Your task to perform on an android device: Go to Reddit.com Image 0: 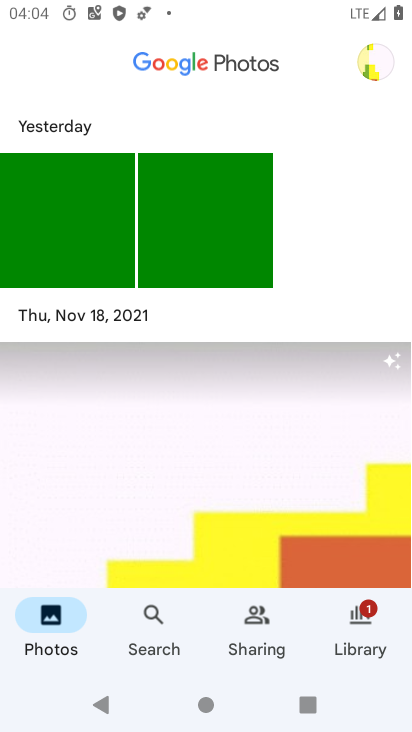
Step 0: press home button
Your task to perform on an android device: Go to Reddit.com Image 1: 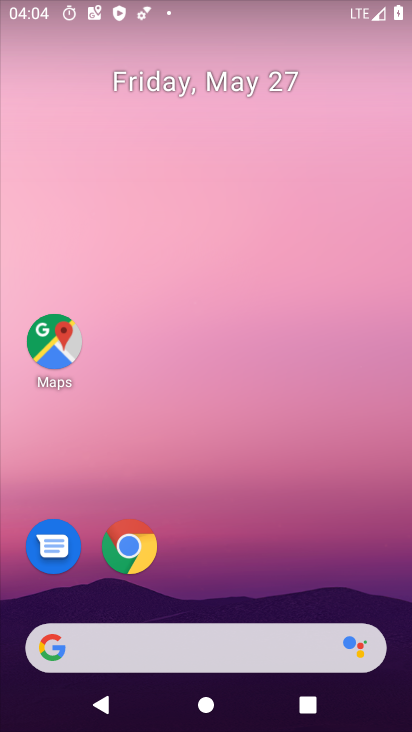
Step 1: drag from (400, 676) to (354, 323)
Your task to perform on an android device: Go to Reddit.com Image 2: 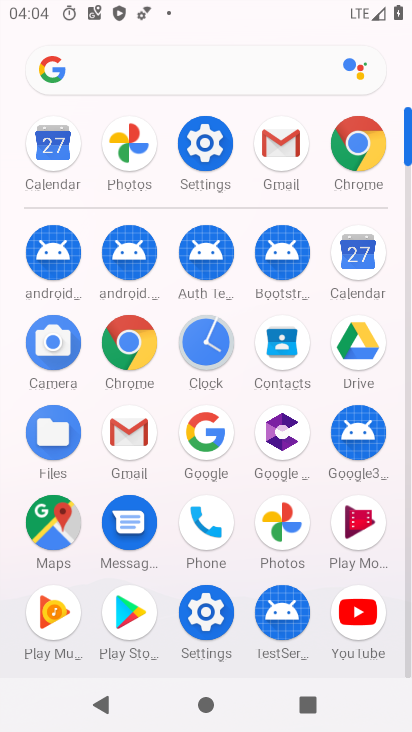
Step 2: click (135, 341)
Your task to perform on an android device: Go to Reddit.com Image 3: 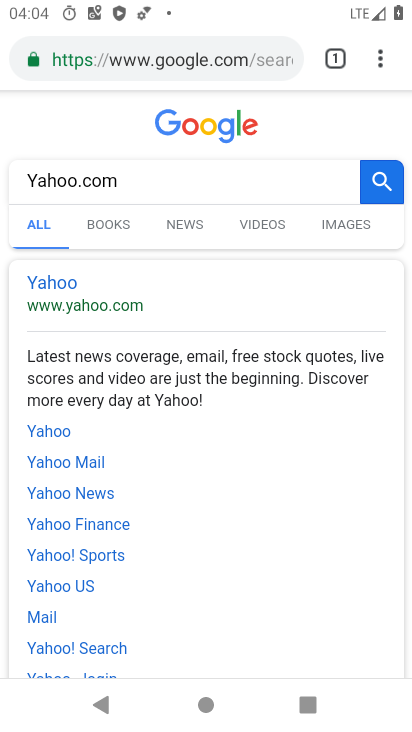
Step 3: click (290, 52)
Your task to perform on an android device: Go to Reddit.com Image 4: 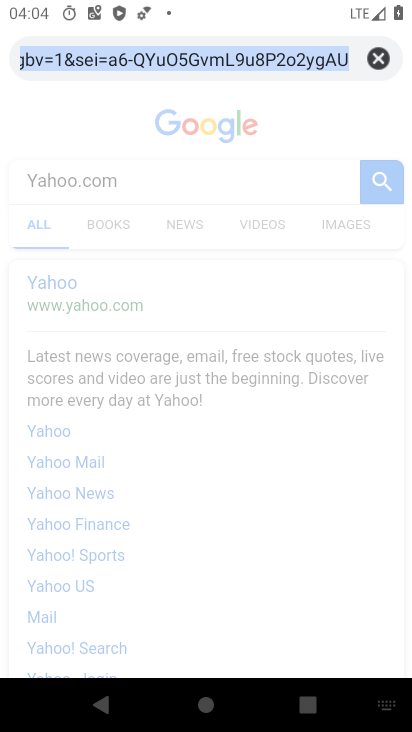
Step 4: click (375, 51)
Your task to perform on an android device: Go to Reddit.com Image 5: 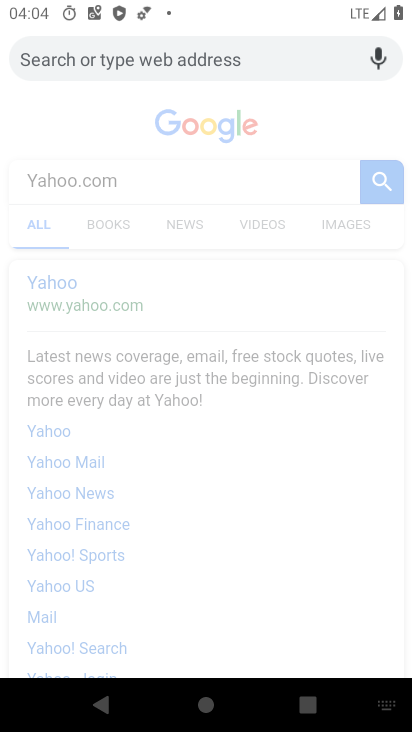
Step 5: type "Reddit.com"
Your task to perform on an android device: Go to Reddit.com Image 6: 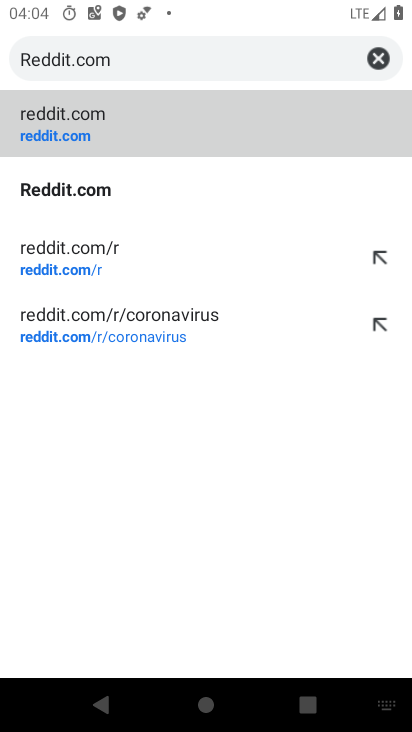
Step 6: click (83, 190)
Your task to perform on an android device: Go to Reddit.com Image 7: 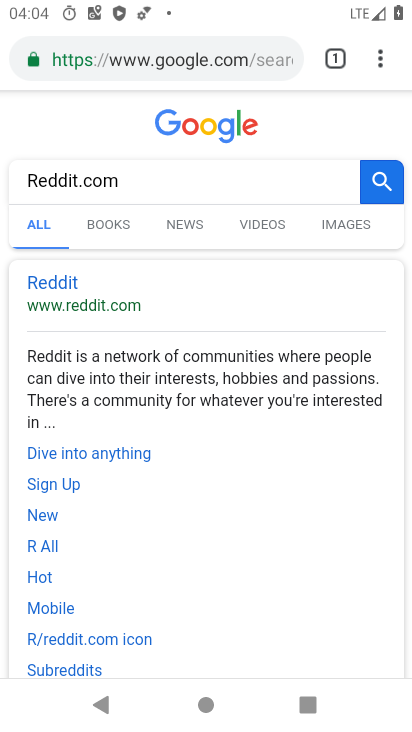
Step 7: task complete